Your task to perform on an android device: Go to ESPN.com Image 0: 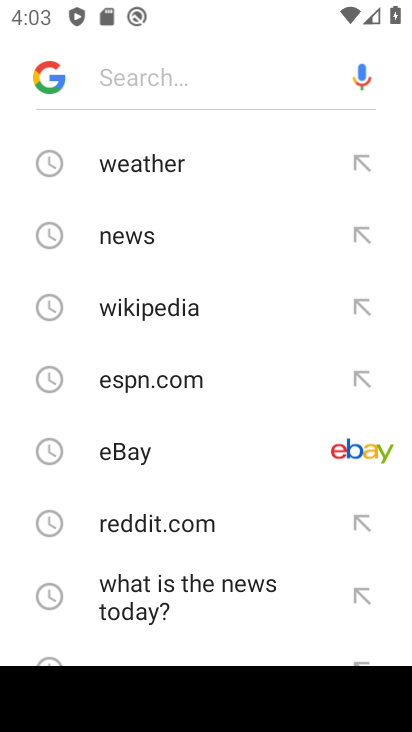
Step 0: type "espn"
Your task to perform on an android device: Go to ESPN.com Image 1: 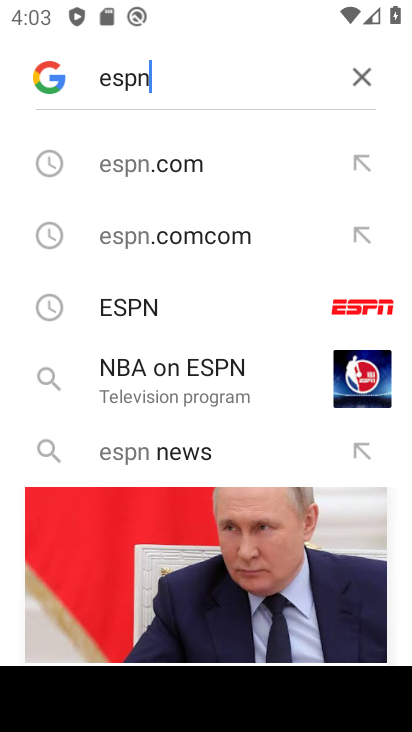
Step 1: click (185, 173)
Your task to perform on an android device: Go to ESPN.com Image 2: 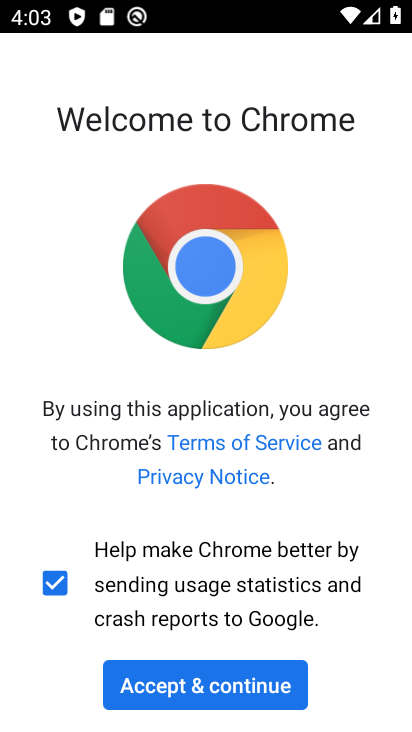
Step 2: click (169, 687)
Your task to perform on an android device: Go to ESPN.com Image 3: 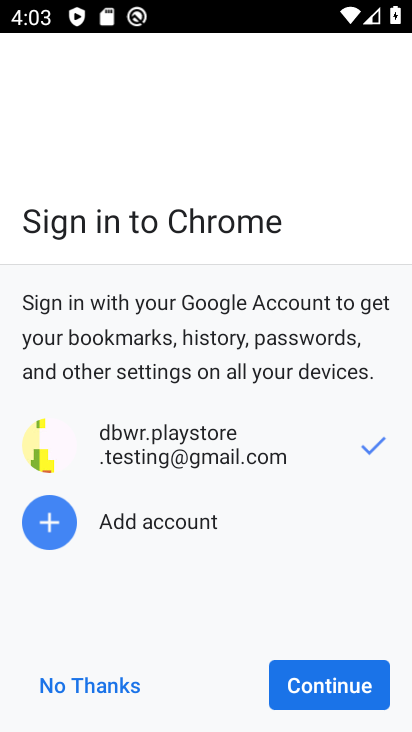
Step 3: click (123, 686)
Your task to perform on an android device: Go to ESPN.com Image 4: 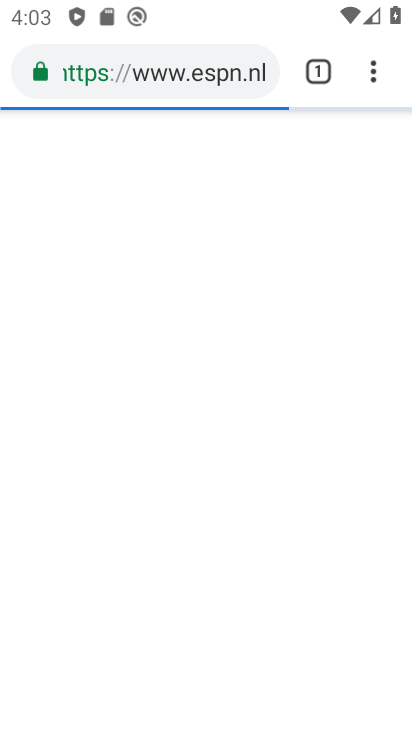
Step 4: click (205, 62)
Your task to perform on an android device: Go to ESPN.com Image 5: 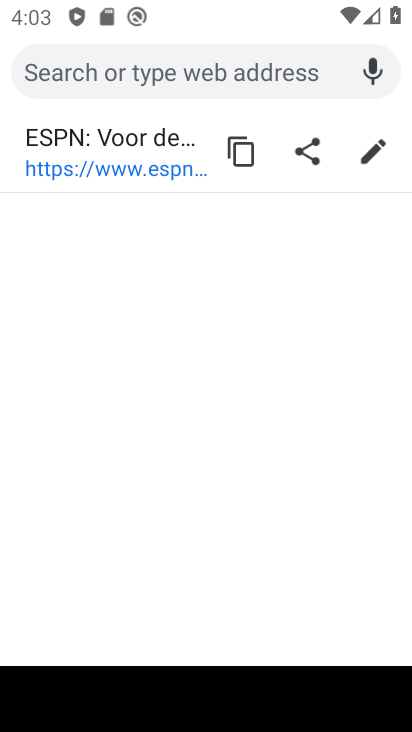
Step 5: type "espn"
Your task to perform on an android device: Go to ESPN.com Image 6: 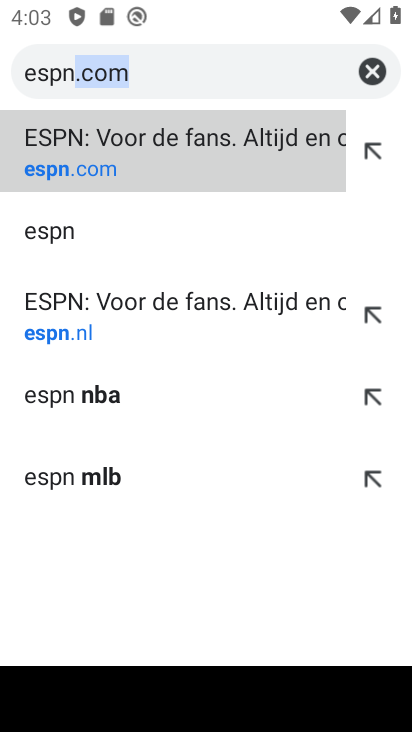
Step 6: click (173, 146)
Your task to perform on an android device: Go to ESPN.com Image 7: 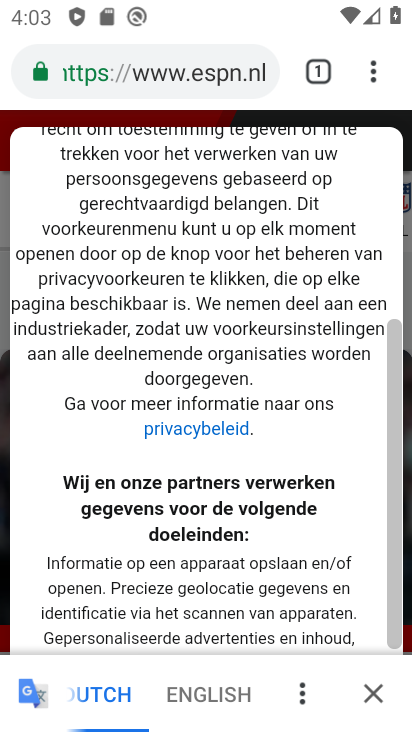
Step 7: task complete